Your task to perform on an android device: set the stopwatch Image 0: 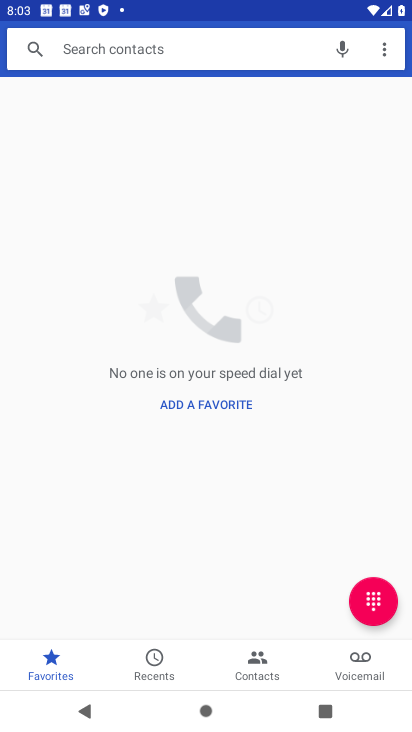
Step 0: press home button
Your task to perform on an android device: set the stopwatch Image 1: 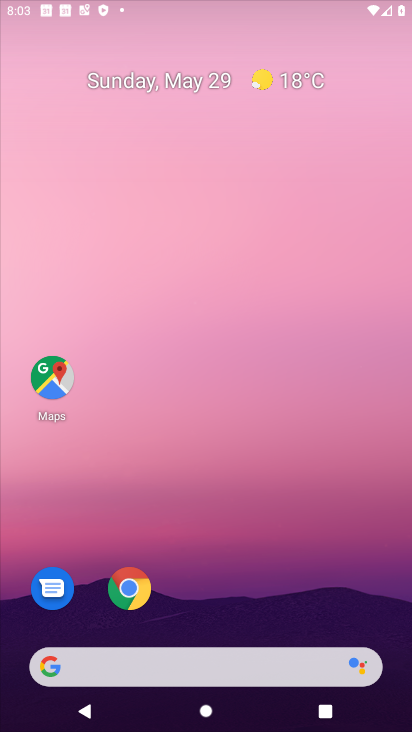
Step 1: drag from (191, 599) to (250, 101)
Your task to perform on an android device: set the stopwatch Image 2: 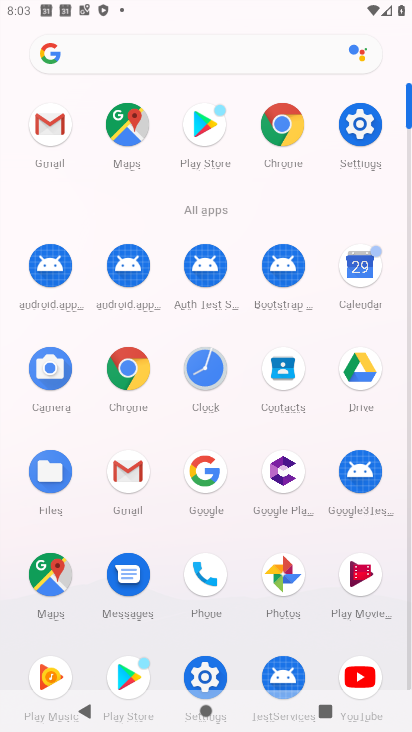
Step 2: click (186, 390)
Your task to perform on an android device: set the stopwatch Image 3: 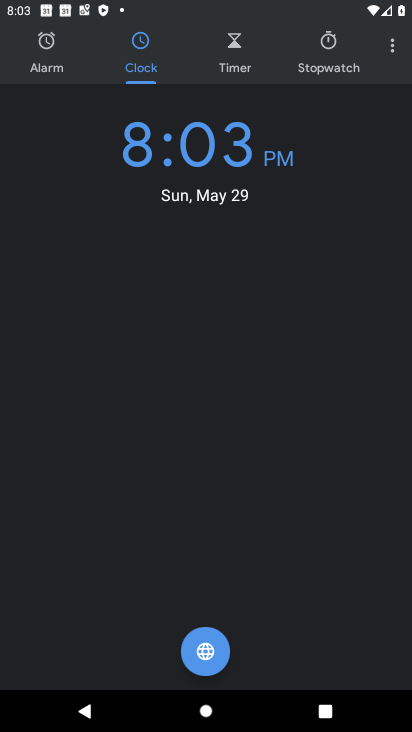
Step 3: click (333, 37)
Your task to perform on an android device: set the stopwatch Image 4: 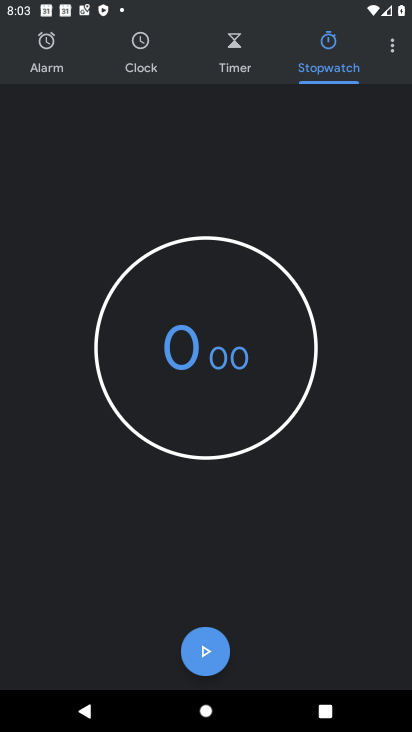
Step 4: click (213, 639)
Your task to perform on an android device: set the stopwatch Image 5: 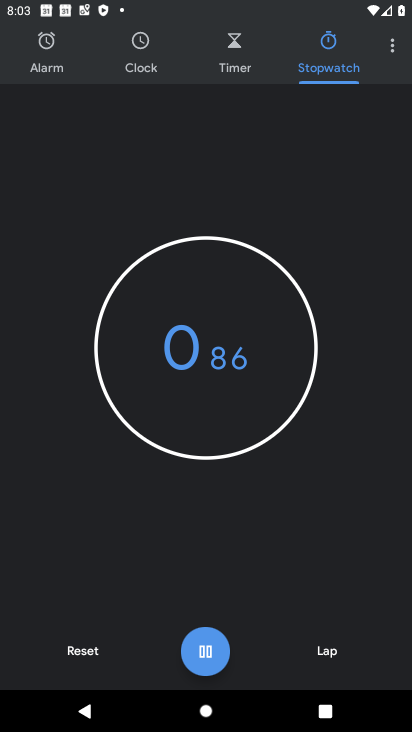
Step 5: click (210, 654)
Your task to perform on an android device: set the stopwatch Image 6: 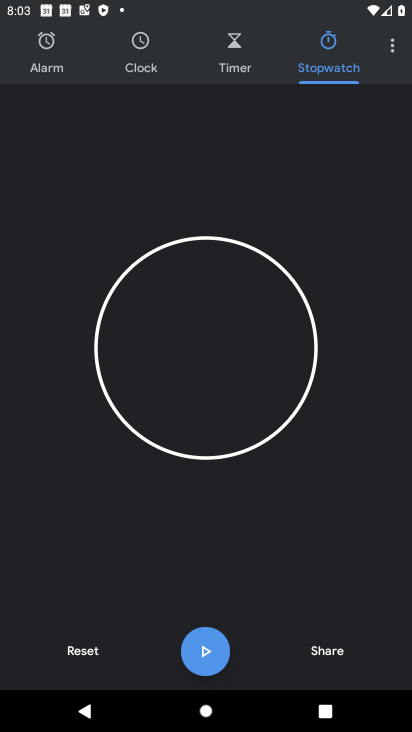
Step 6: task complete